Your task to perform on an android device: turn off priority inbox in the gmail app Image 0: 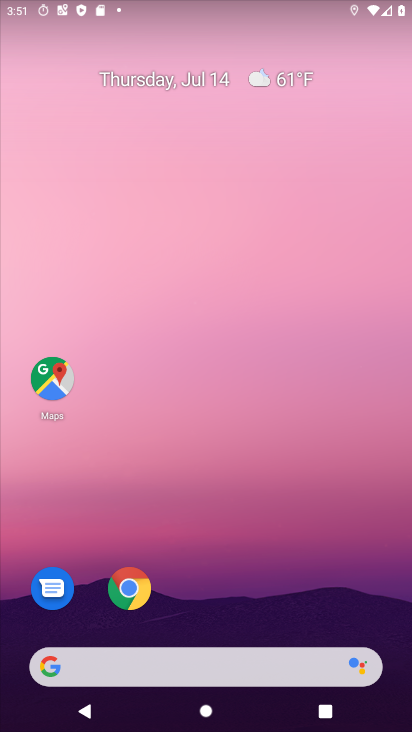
Step 0: drag from (213, 662) to (208, 232)
Your task to perform on an android device: turn off priority inbox in the gmail app Image 1: 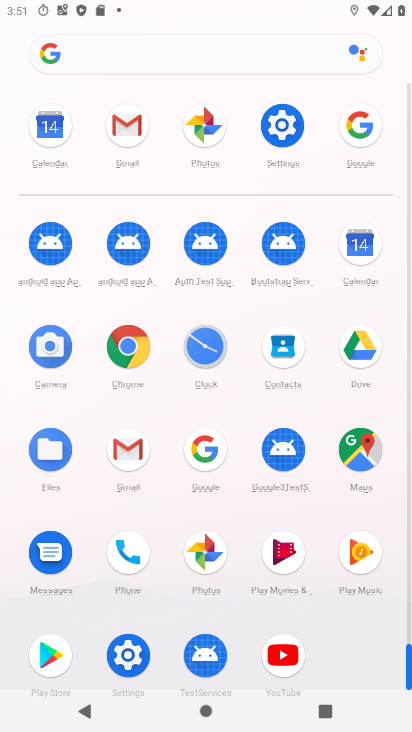
Step 1: click (128, 123)
Your task to perform on an android device: turn off priority inbox in the gmail app Image 2: 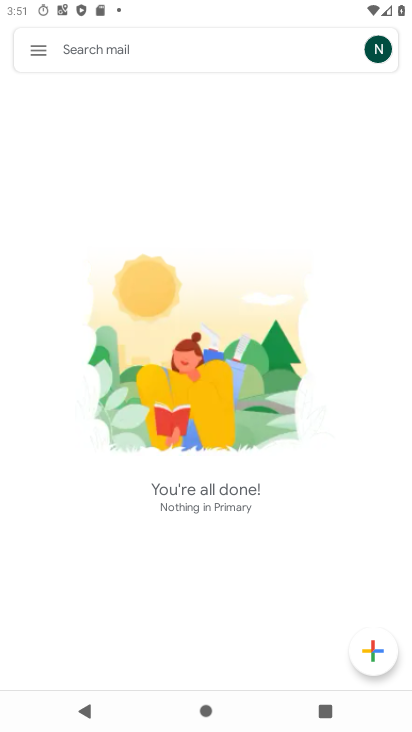
Step 2: click (40, 50)
Your task to perform on an android device: turn off priority inbox in the gmail app Image 3: 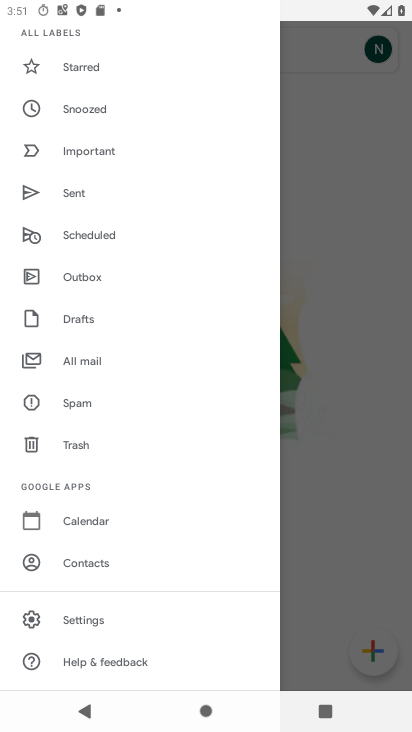
Step 3: click (94, 623)
Your task to perform on an android device: turn off priority inbox in the gmail app Image 4: 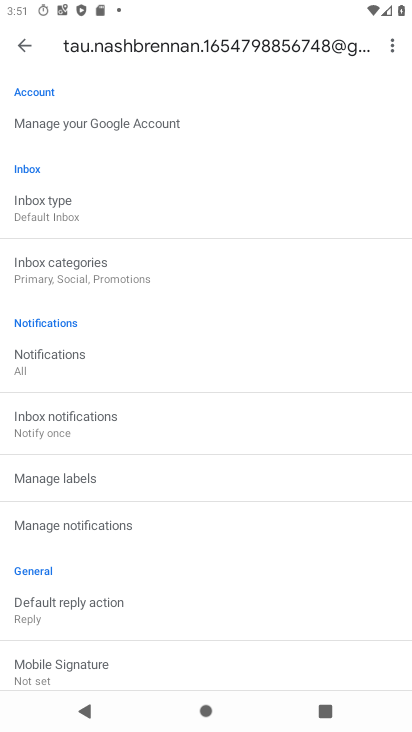
Step 4: click (58, 221)
Your task to perform on an android device: turn off priority inbox in the gmail app Image 5: 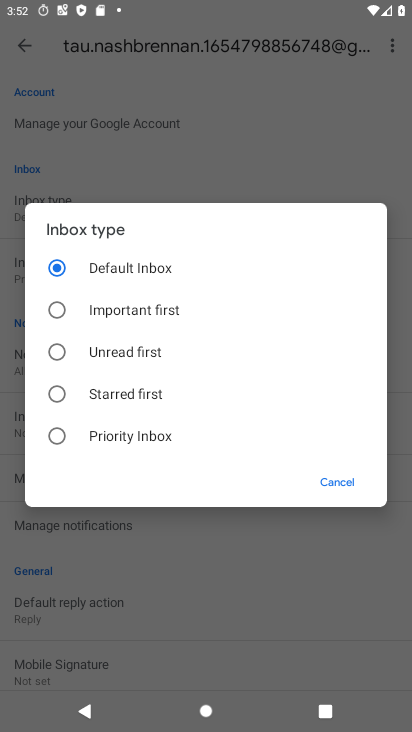
Step 5: click (59, 310)
Your task to perform on an android device: turn off priority inbox in the gmail app Image 6: 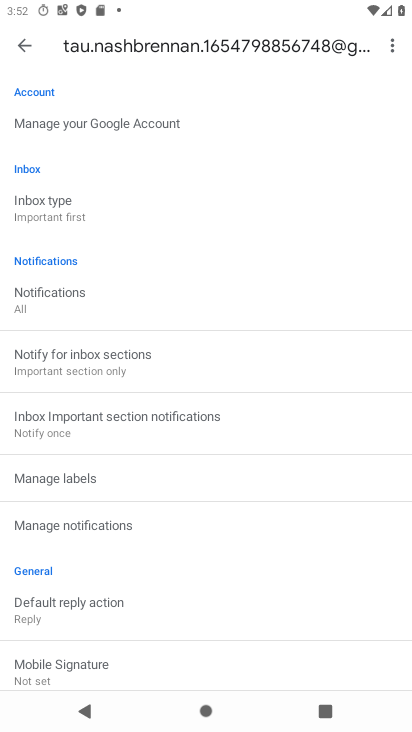
Step 6: task complete